Your task to perform on an android device: toggle show notifications on the lock screen Image 0: 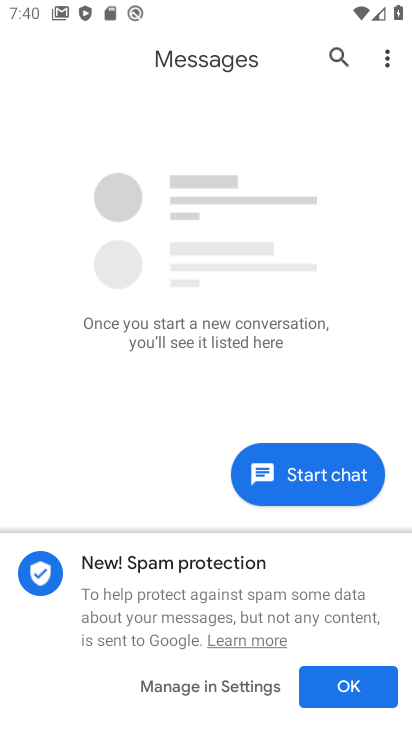
Step 0: drag from (282, 620) to (353, 206)
Your task to perform on an android device: toggle show notifications on the lock screen Image 1: 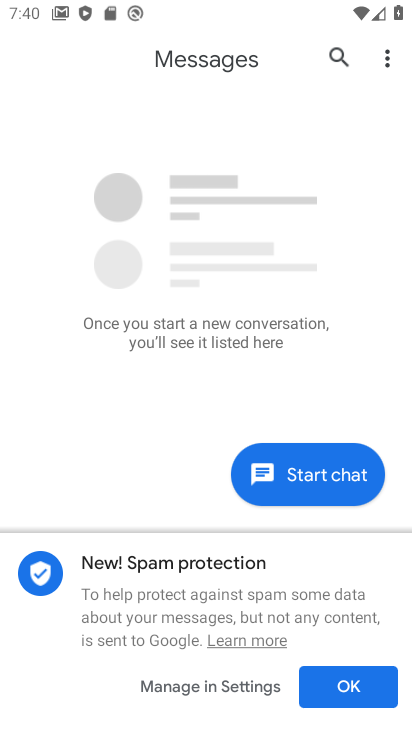
Step 1: press home button
Your task to perform on an android device: toggle show notifications on the lock screen Image 2: 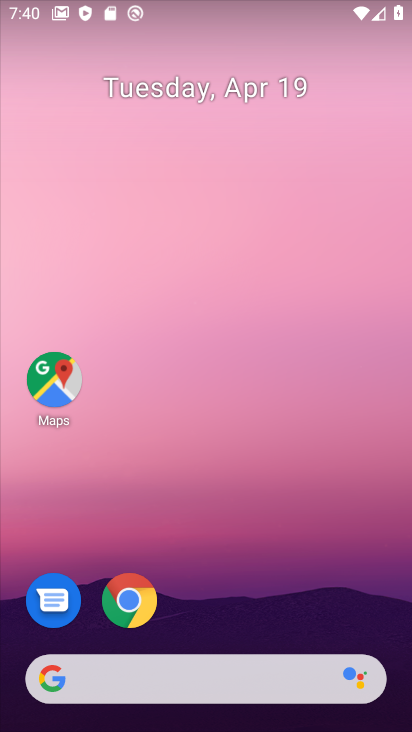
Step 2: drag from (256, 616) to (282, 76)
Your task to perform on an android device: toggle show notifications on the lock screen Image 3: 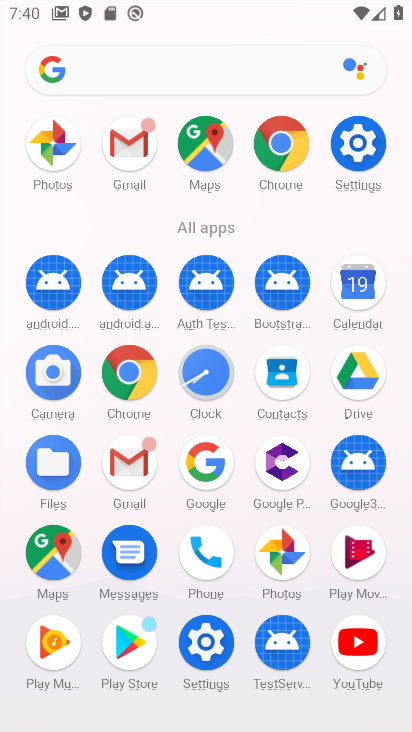
Step 3: click (364, 155)
Your task to perform on an android device: toggle show notifications on the lock screen Image 4: 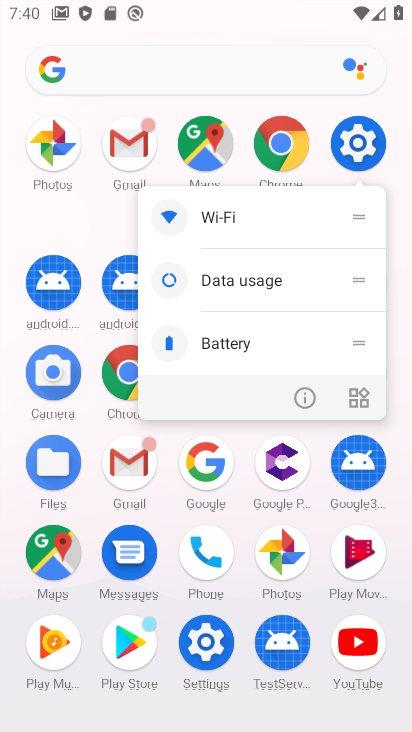
Step 4: click (359, 151)
Your task to perform on an android device: toggle show notifications on the lock screen Image 5: 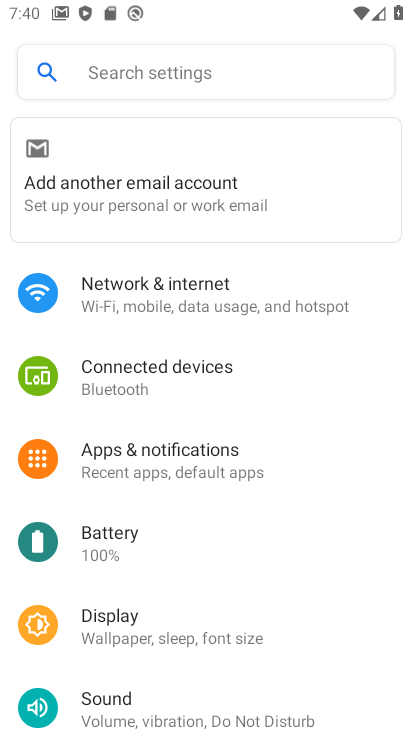
Step 5: click (290, 463)
Your task to perform on an android device: toggle show notifications on the lock screen Image 6: 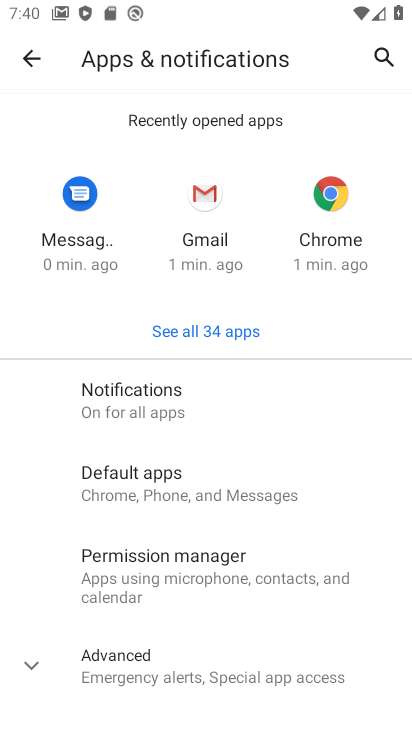
Step 6: click (252, 417)
Your task to perform on an android device: toggle show notifications on the lock screen Image 7: 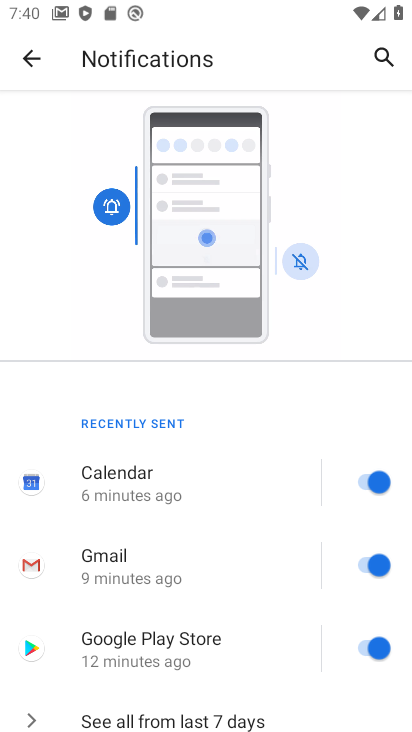
Step 7: drag from (180, 638) to (263, 187)
Your task to perform on an android device: toggle show notifications on the lock screen Image 8: 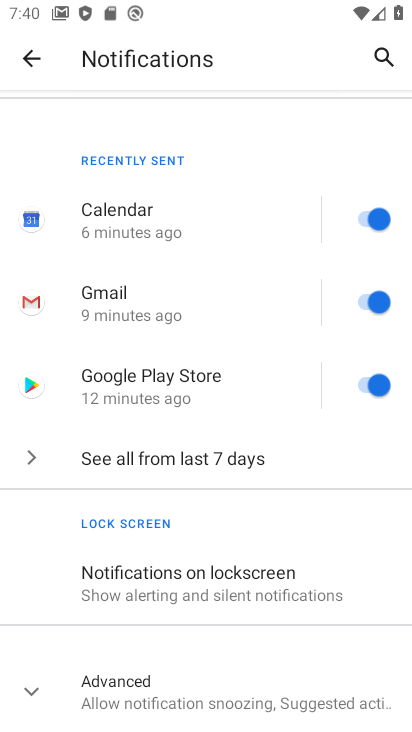
Step 8: click (291, 590)
Your task to perform on an android device: toggle show notifications on the lock screen Image 9: 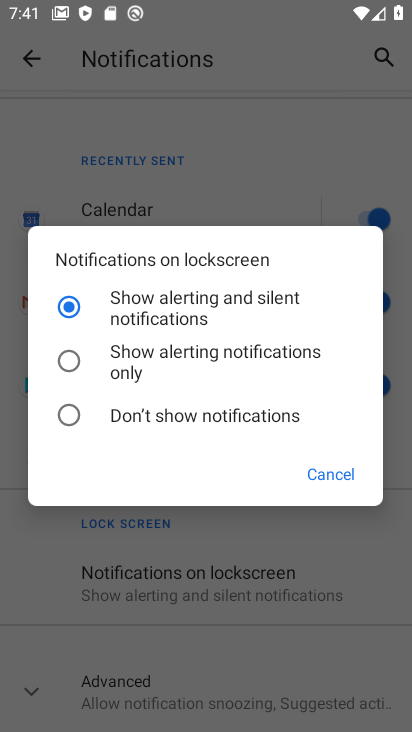
Step 9: click (133, 409)
Your task to perform on an android device: toggle show notifications on the lock screen Image 10: 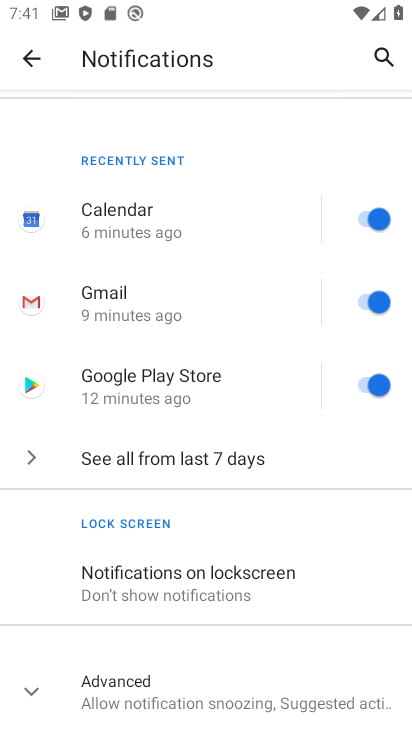
Step 10: task complete